Your task to perform on an android device: Find coffee shops on Maps Image 0: 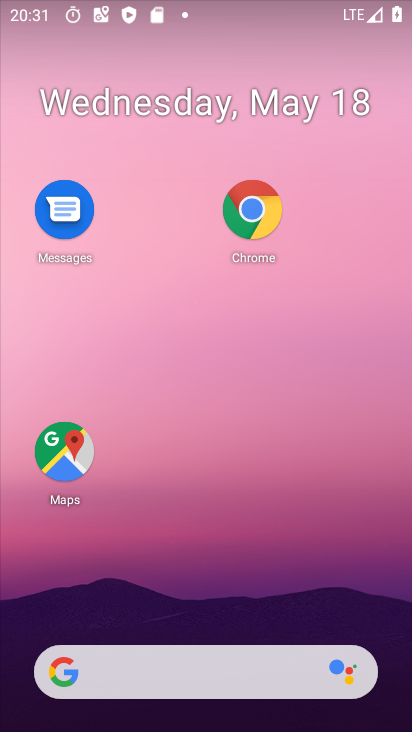
Step 0: click (64, 452)
Your task to perform on an android device: Find coffee shops on Maps Image 1: 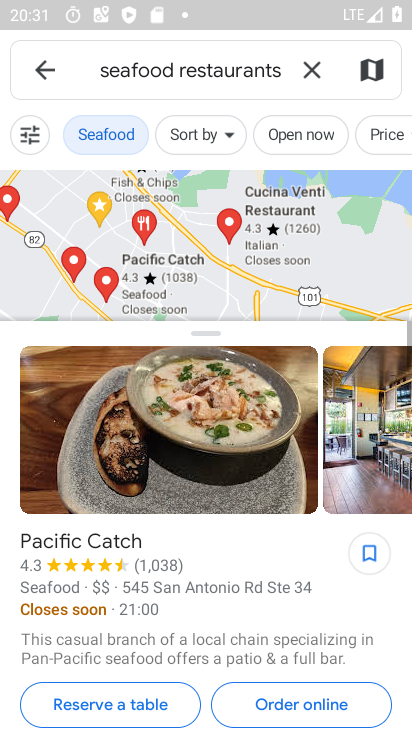
Step 1: click (310, 68)
Your task to perform on an android device: Find coffee shops on Maps Image 2: 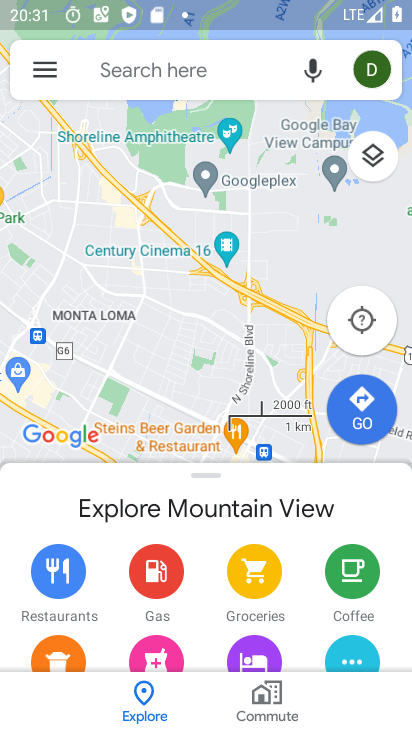
Step 2: click (206, 67)
Your task to perform on an android device: Find coffee shops on Maps Image 3: 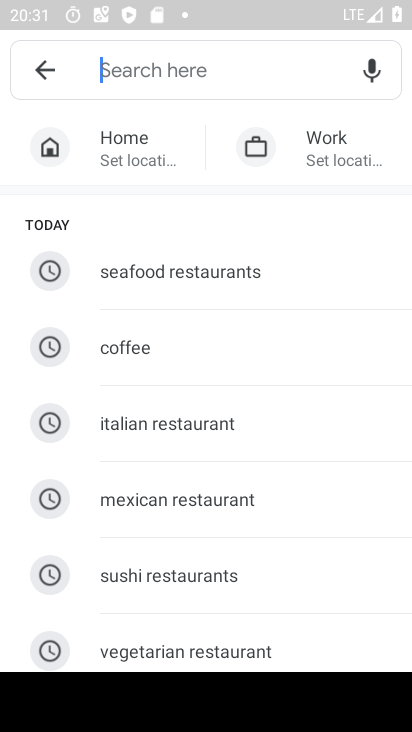
Step 3: click (161, 347)
Your task to perform on an android device: Find coffee shops on Maps Image 4: 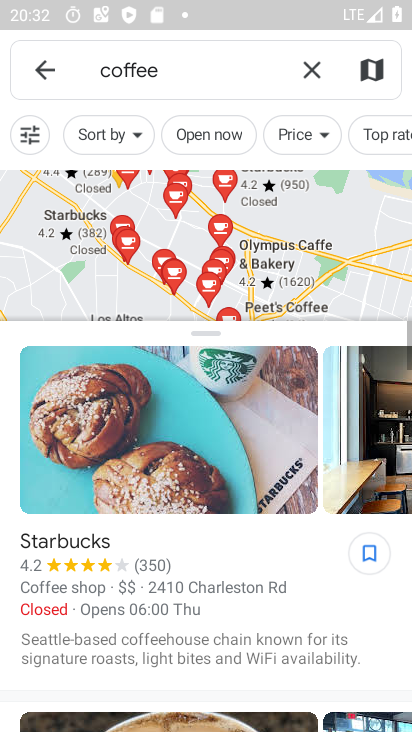
Step 4: task complete